Your task to perform on an android device: star an email in the gmail app Image 0: 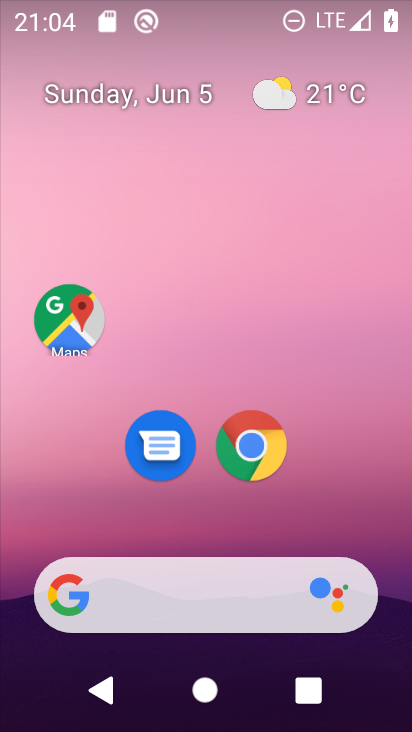
Step 0: drag from (349, 382) to (343, 127)
Your task to perform on an android device: star an email in the gmail app Image 1: 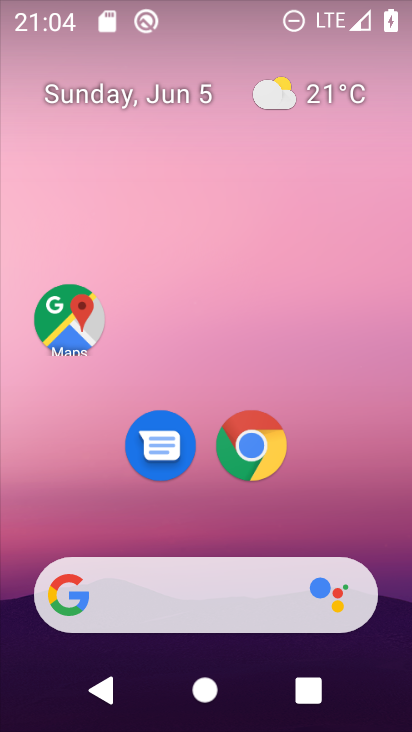
Step 1: drag from (335, 492) to (335, 50)
Your task to perform on an android device: star an email in the gmail app Image 2: 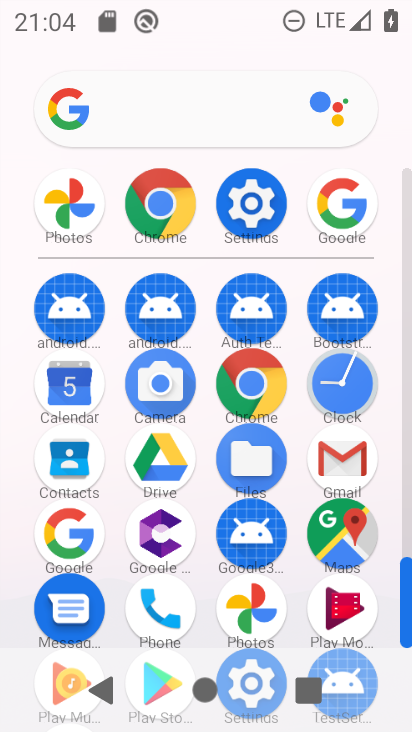
Step 2: click (353, 454)
Your task to perform on an android device: star an email in the gmail app Image 3: 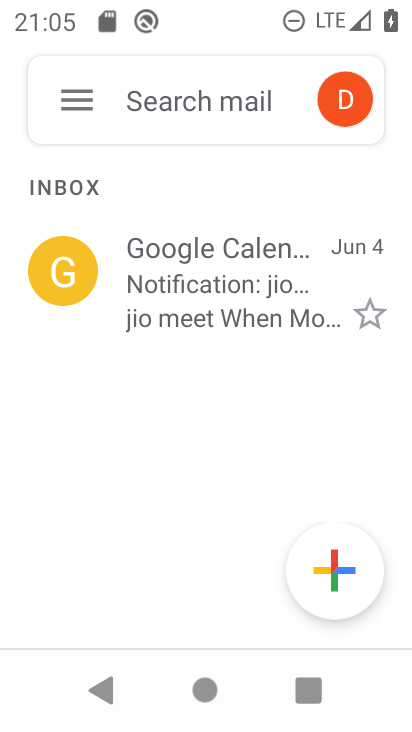
Step 3: click (193, 299)
Your task to perform on an android device: star an email in the gmail app Image 4: 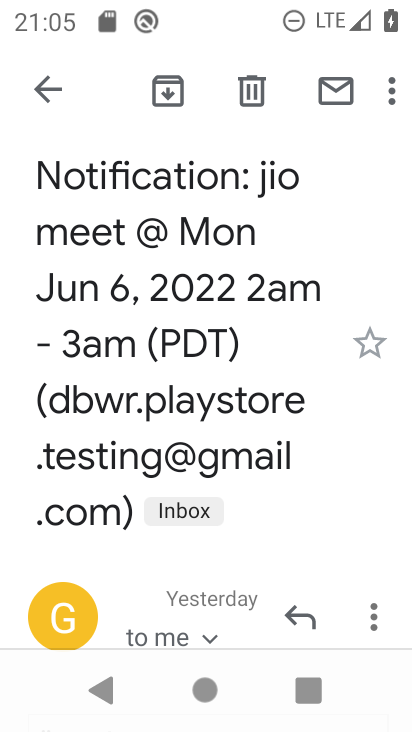
Step 4: click (363, 340)
Your task to perform on an android device: star an email in the gmail app Image 5: 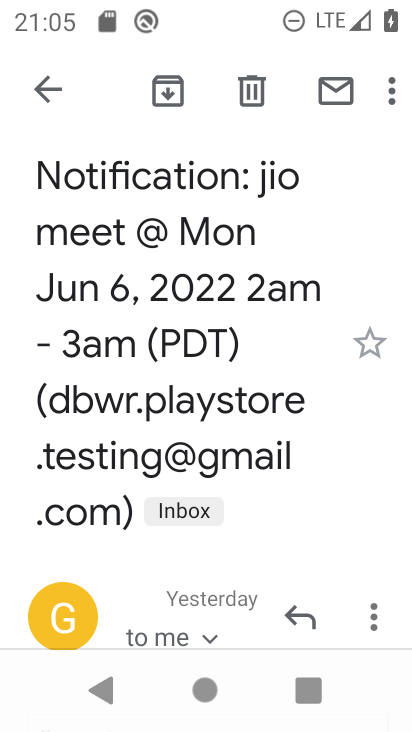
Step 5: click (377, 346)
Your task to perform on an android device: star an email in the gmail app Image 6: 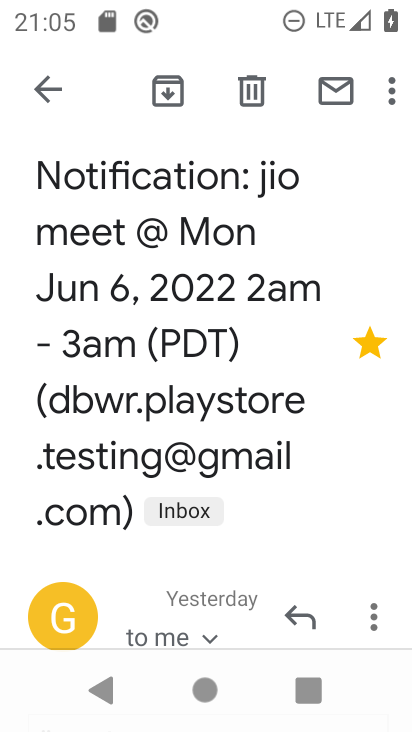
Step 6: task complete